Your task to perform on an android device: turn off sleep mode Image 0: 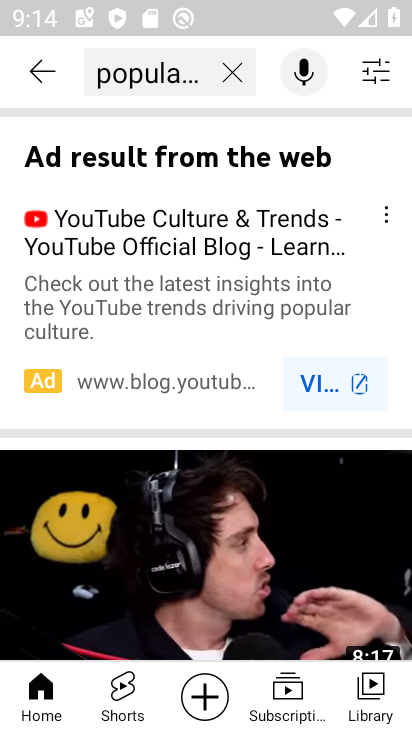
Step 0: press home button
Your task to perform on an android device: turn off sleep mode Image 1: 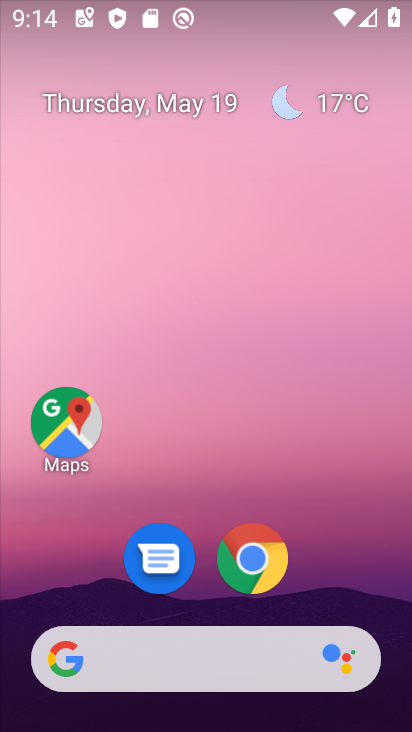
Step 1: drag from (207, 728) to (217, 181)
Your task to perform on an android device: turn off sleep mode Image 2: 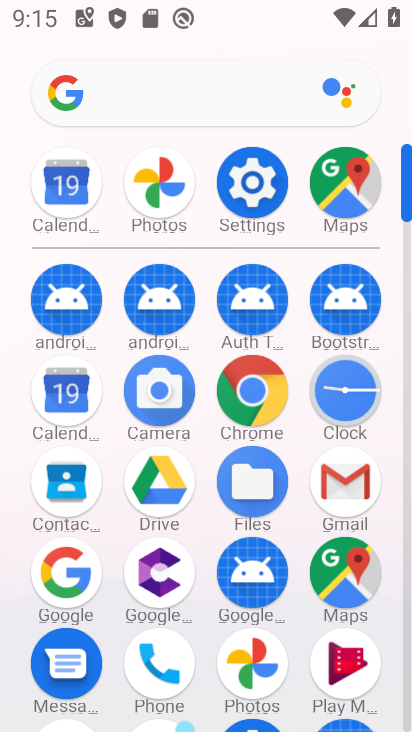
Step 2: click (257, 176)
Your task to perform on an android device: turn off sleep mode Image 3: 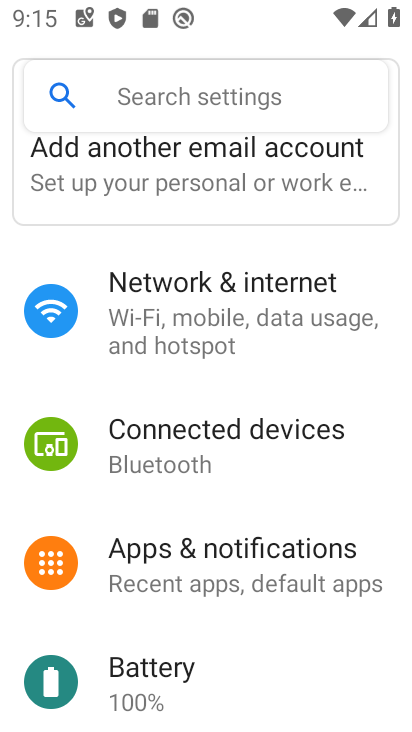
Step 3: task complete